Your task to perform on an android device: change your default location settings in chrome Image 0: 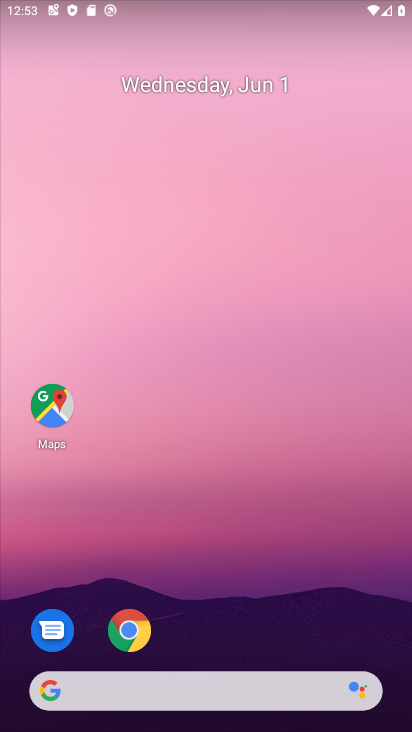
Step 0: click (124, 629)
Your task to perform on an android device: change your default location settings in chrome Image 1: 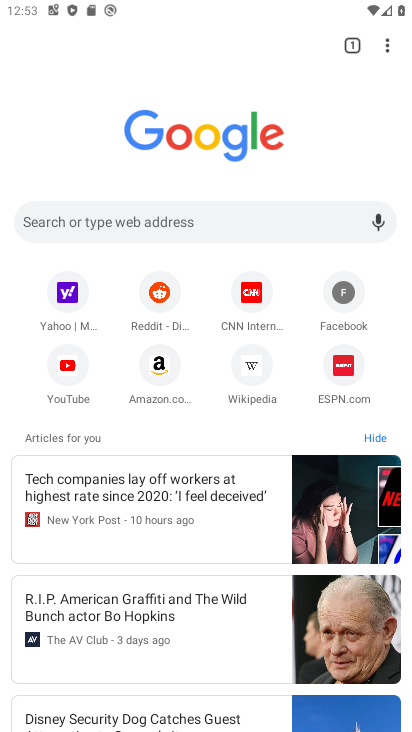
Step 1: drag from (391, 40) to (259, 391)
Your task to perform on an android device: change your default location settings in chrome Image 2: 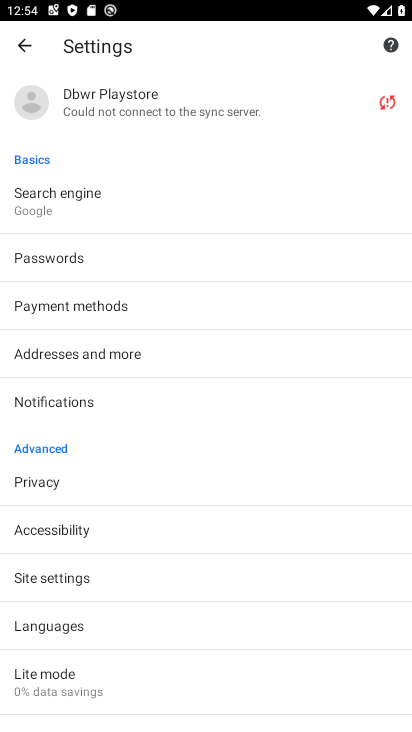
Step 2: drag from (353, 701) to (370, 292)
Your task to perform on an android device: change your default location settings in chrome Image 3: 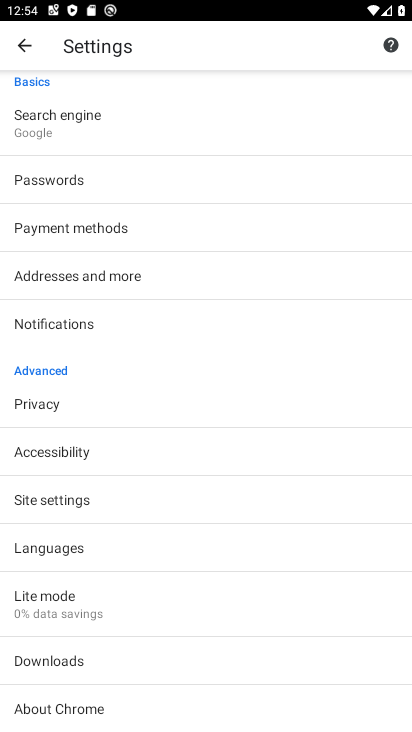
Step 3: click (120, 498)
Your task to perform on an android device: change your default location settings in chrome Image 4: 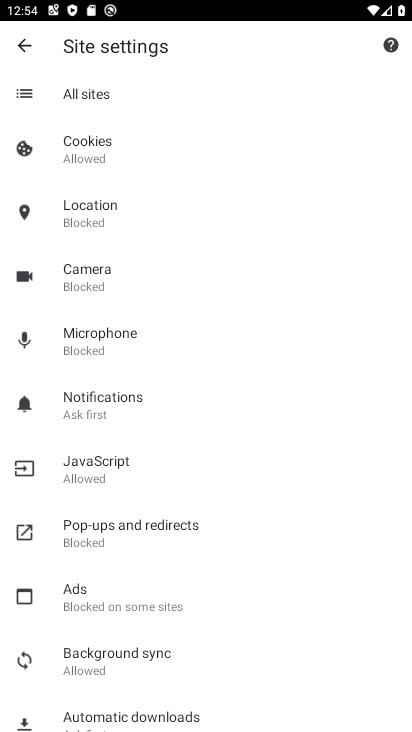
Step 4: click (106, 193)
Your task to perform on an android device: change your default location settings in chrome Image 5: 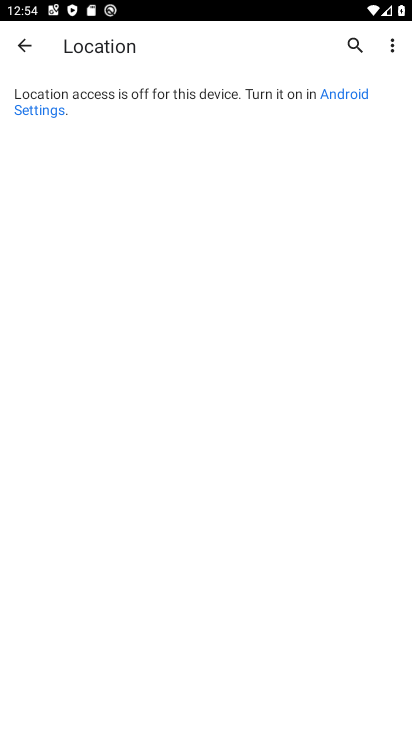
Step 5: click (334, 91)
Your task to perform on an android device: change your default location settings in chrome Image 6: 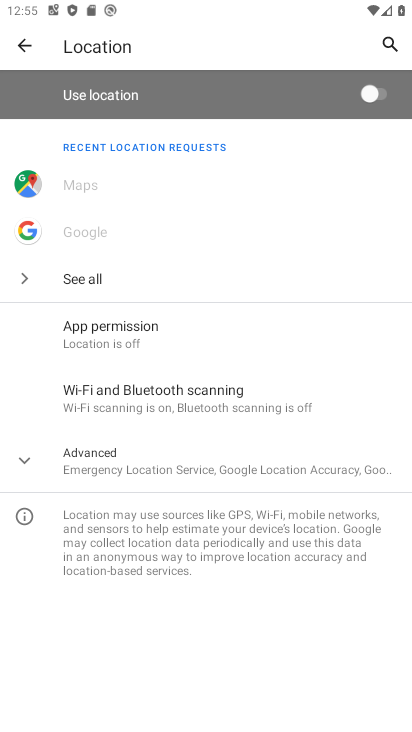
Step 6: click (377, 103)
Your task to perform on an android device: change your default location settings in chrome Image 7: 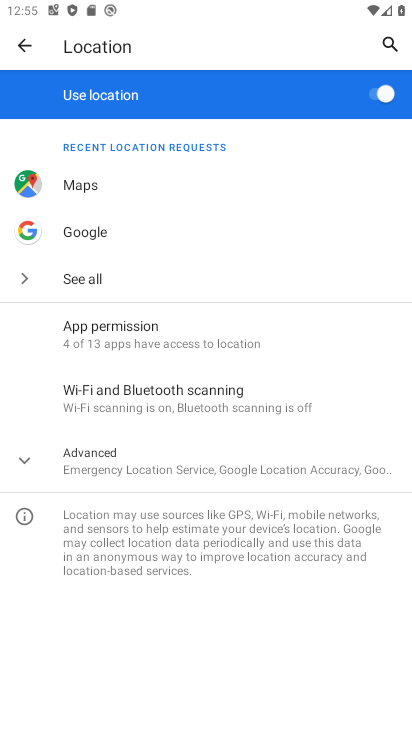
Step 7: task complete